Your task to perform on an android device: set the stopwatch Image 0: 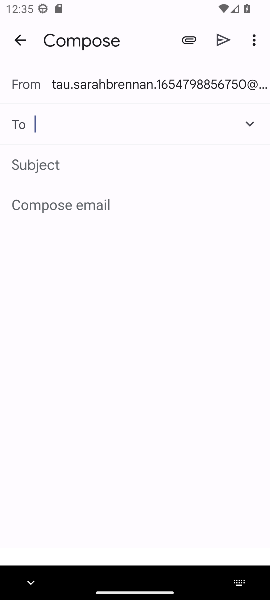
Step 0: press home button
Your task to perform on an android device: set the stopwatch Image 1: 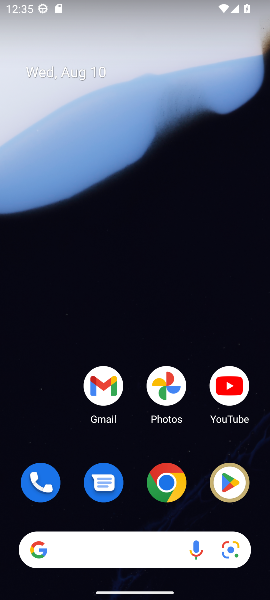
Step 1: drag from (75, 390) to (119, 99)
Your task to perform on an android device: set the stopwatch Image 2: 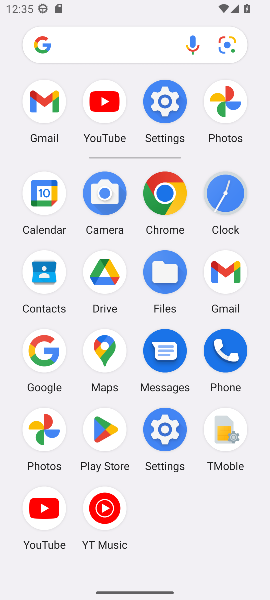
Step 2: click (225, 195)
Your task to perform on an android device: set the stopwatch Image 3: 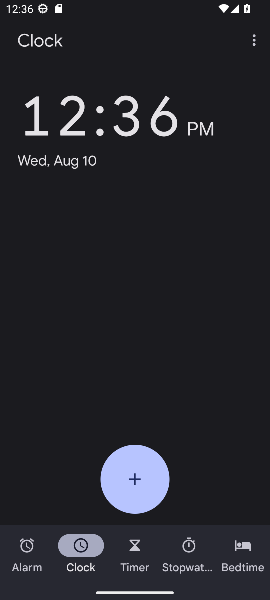
Step 3: task complete